Your task to perform on an android device: change notifications settings Image 0: 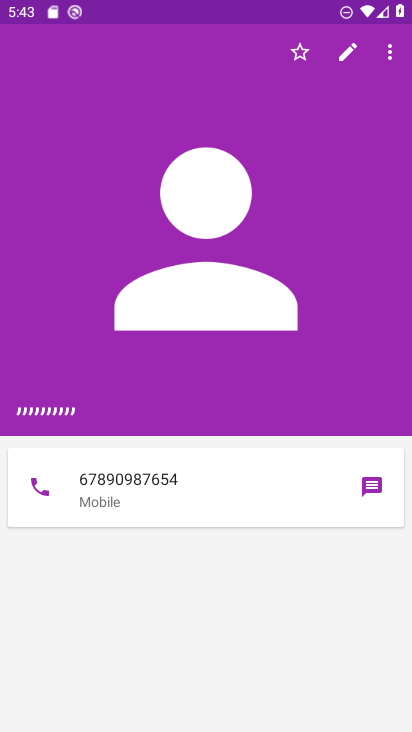
Step 0: press home button
Your task to perform on an android device: change notifications settings Image 1: 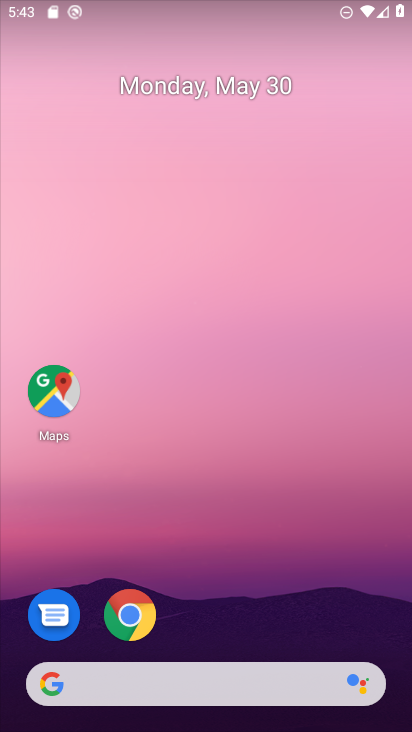
Step 1: drag from (155, 635) to (206, 150)
Your task to perform on an android device: change notifications settings Image 2: 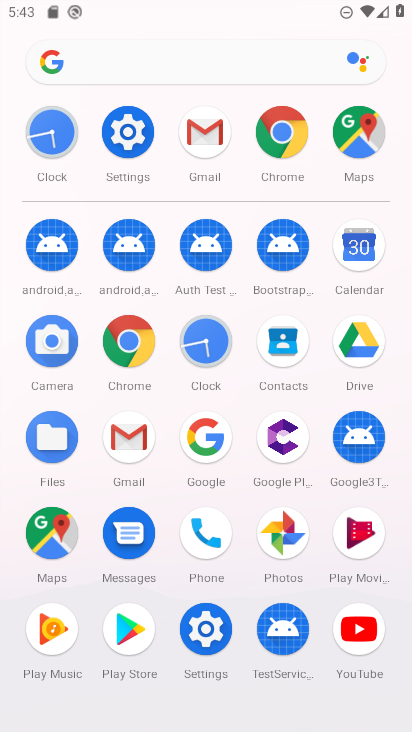
Step 2: click (132, 127)
Your task to perform on an android device: change notifications settings Image 3: 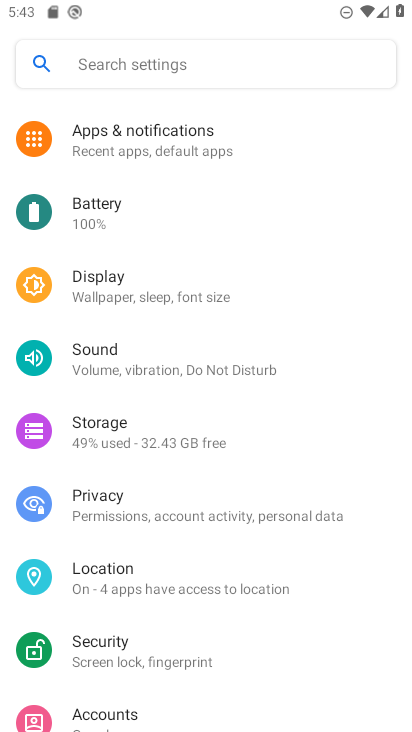
Step 3: click (132, 127)
Your task to perform on an android device: change notifications settings Image 4: 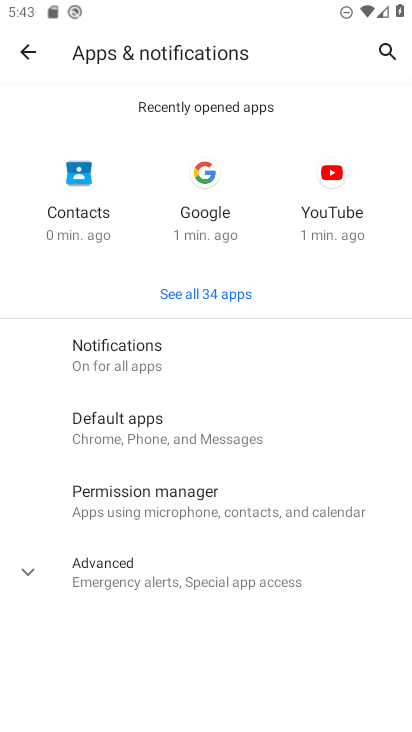
Step 4: task complete